Your task to perform on an android device: See recent photos Image 0: 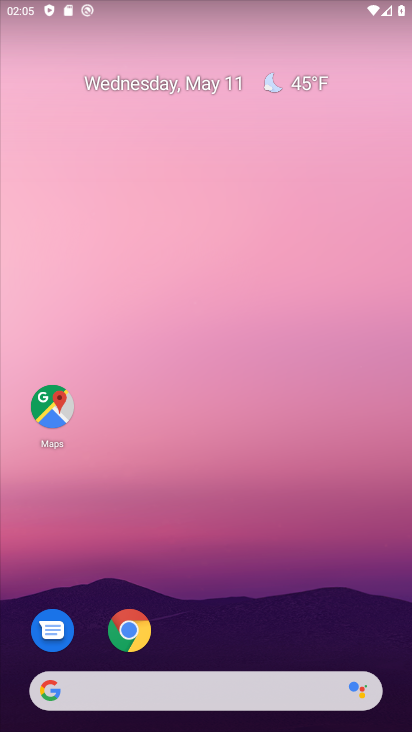
Step 0: drag from (190, 718) to (183, 231)
Your task to perform on an android device: See recent photos Image 1: 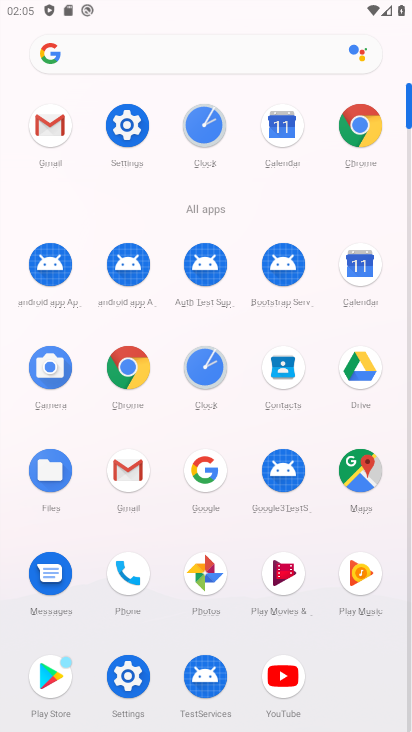
Step 1: click (201, 577)
Your task to perform on an android device: See recent photos Image 2: 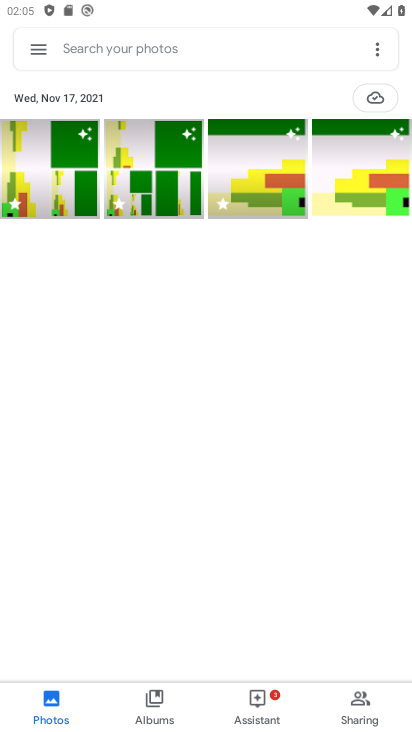
Step 2: click (45, 180)
Your task to perform on an android device: See recent photos Image 3: 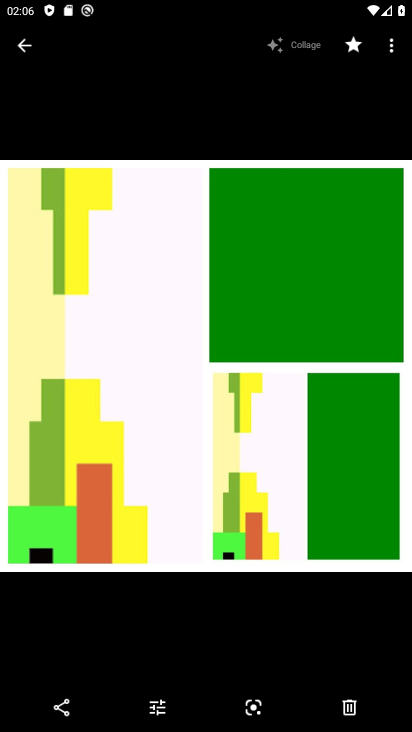
Step 3: task complete